Your task to perform on an android device: change notification settings in the gmail app Image 0: 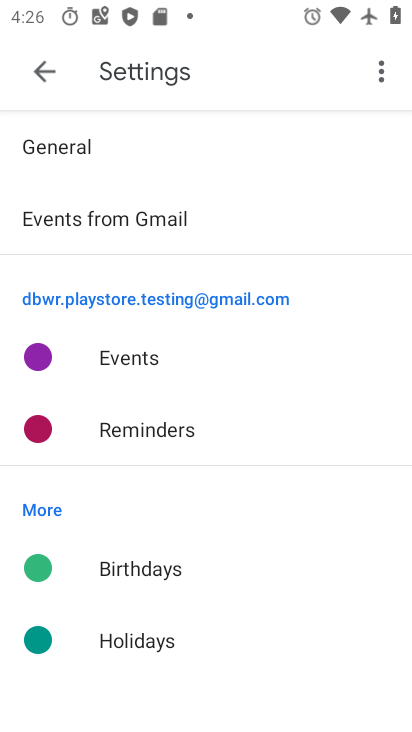
Step 0: press home button
Your task to perform on an android device: change notification settings in the gmail app Image 1: 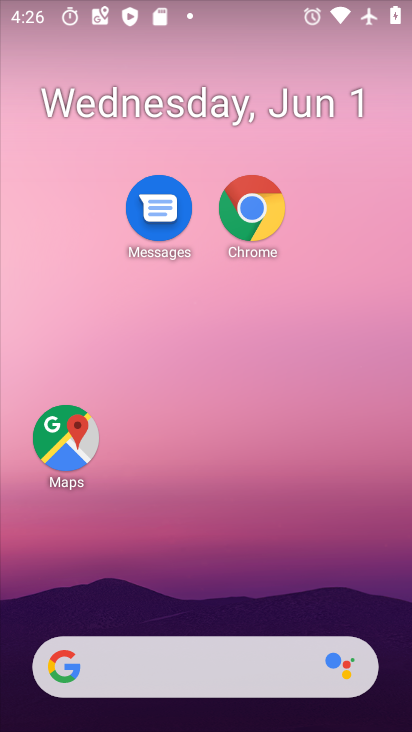
Step 1: drag from (211, 613) to (232, 271)
Your task to perform on an android device: change notification settings in the gmail app Image 2: 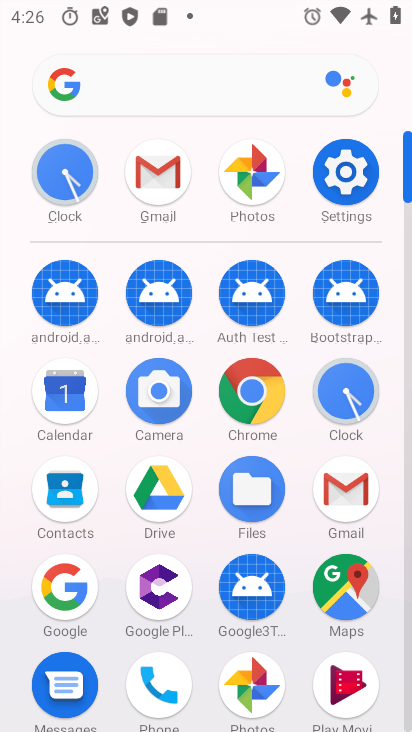
Step 2: click (174, 208)
Your task to perform on an android device: change notification settings in the gmail app Image 3: 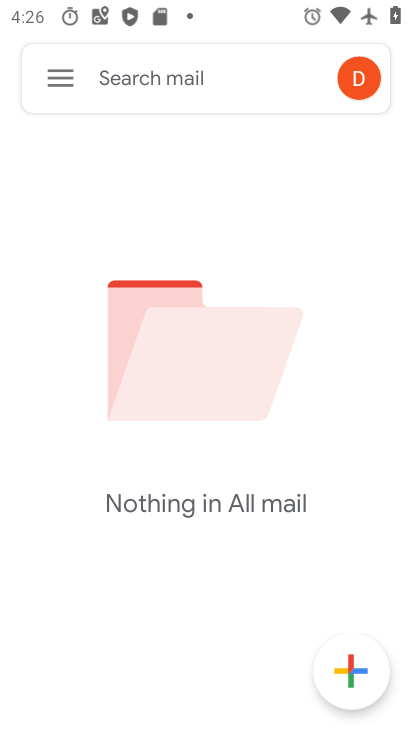
Step 3: click (68, 75)
Your task to perform on an android device: change notification settings in the gmail app Image 4: 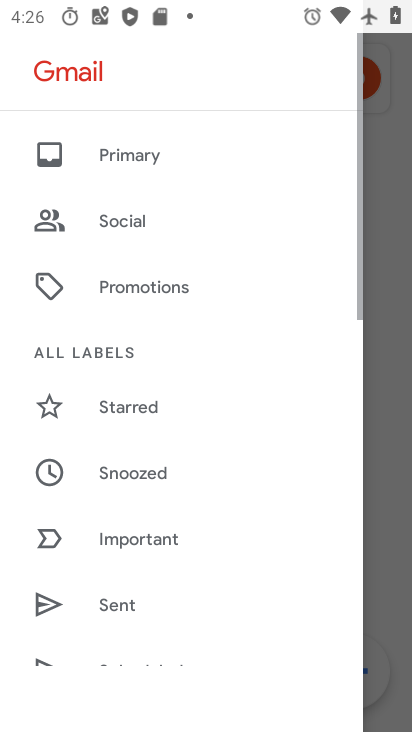
Step 4: drag from (149, 628) to (174, 253)
Your task to perform on an android device: change notification settings in the gmail app Image 5: 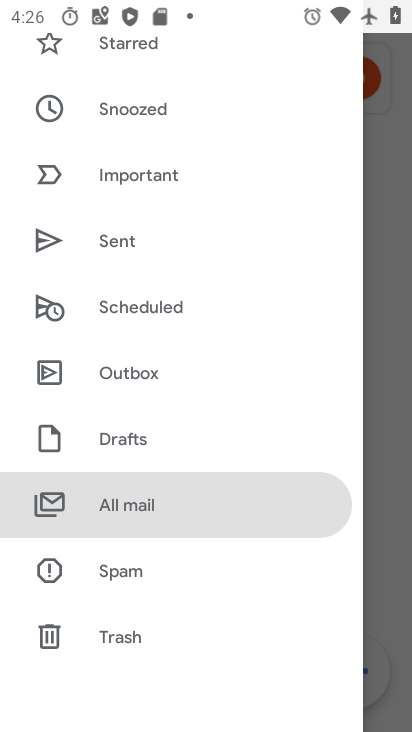
Step 5: drag from (139, 614) to (147, 348)
Your task to perform on an android device: change notification settings in the gmail app Image 6: 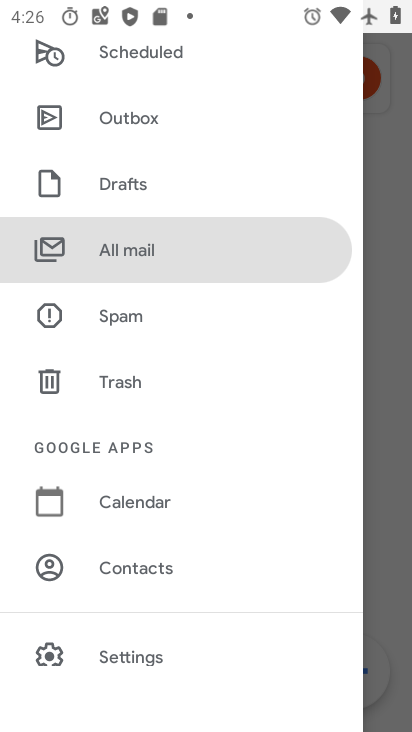
Step 6: click (133, 645)
Your task to perform on an android device: change notification settings in the gmail app Image 7: 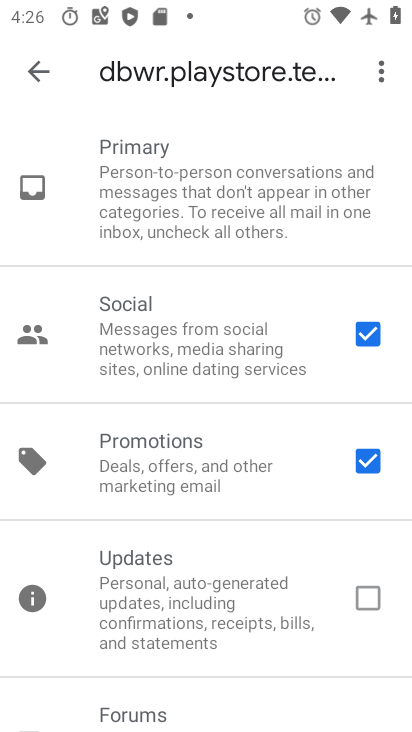
Step 7: drag from (185, 559) to (161, 254)
Your task to perform on an android device: change notification settings in the gmail app Image 8: 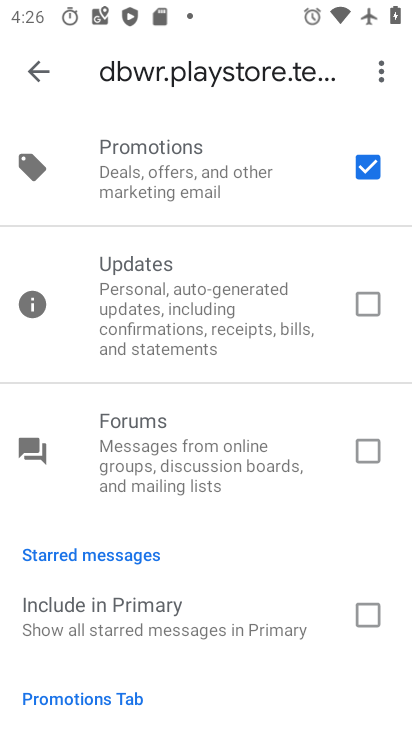
Step 8: drag from (169, 591) to (190, 289)
Your task to perform on an android device: change notification settings in the gmail app Image 9: 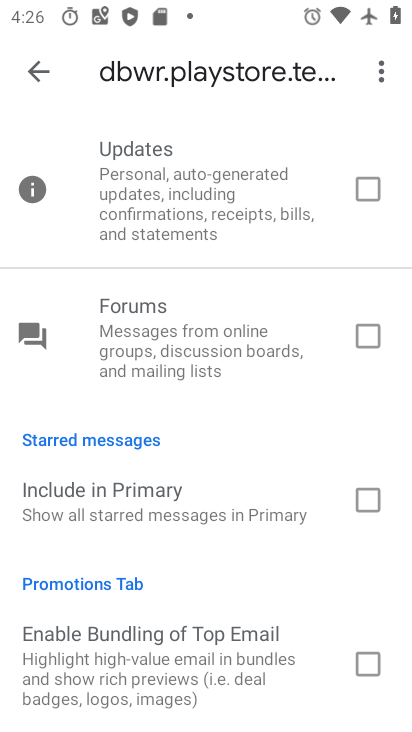
Step 9: click (48, 78)
Your task to perform on an android device: change notification settings in the gmail app Image 10: 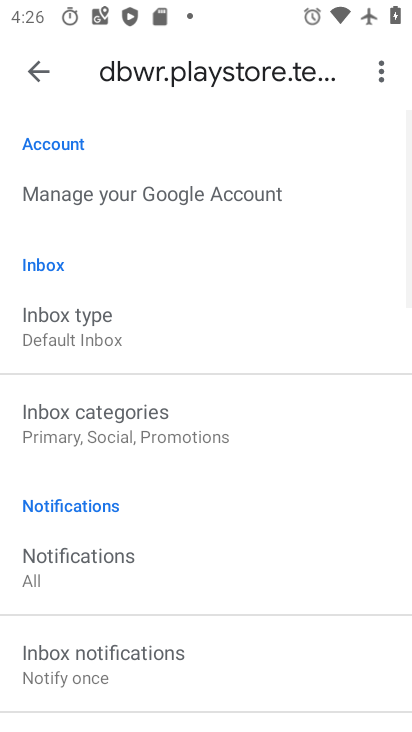
Step 10: drag from (115, 576) to (138, 298)
Your task to perform on an android device: change notification settings in the gmail app Image 11: 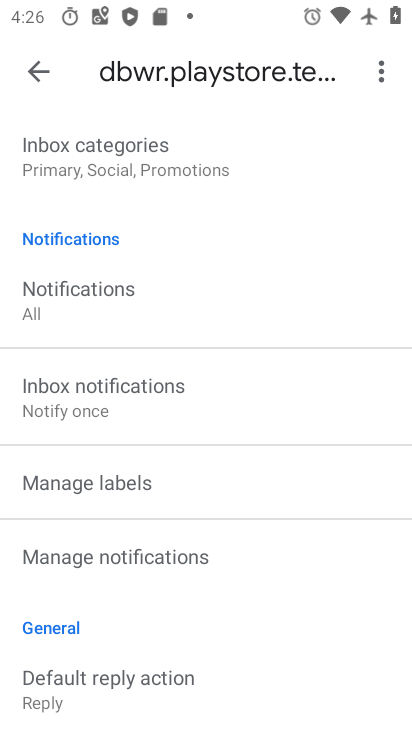
Step 11: click (134, 570)
Your task to perform on an android device: change notification settings in the gmail app Image 12: 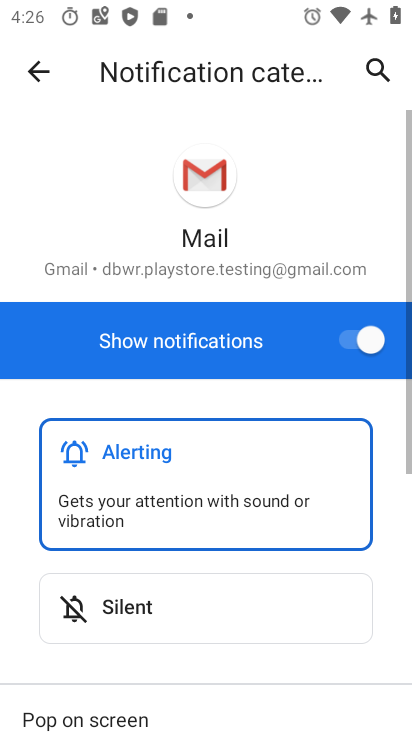
Step 12: click (341, 333)
Your task to perform on an android device: change notification settings in the gmail app Image 13: 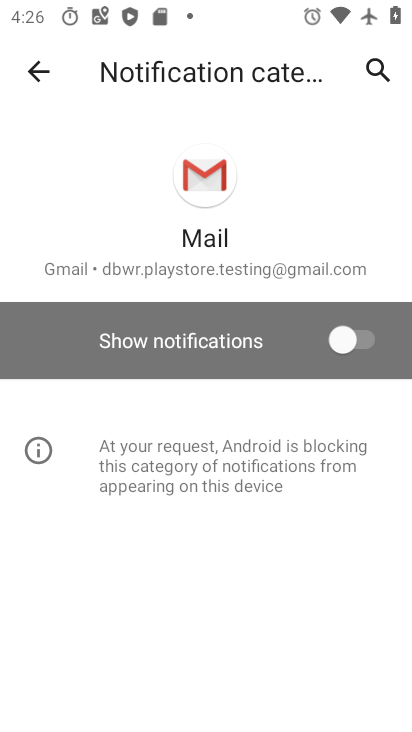
Step 13: task complete